Your task to perform on an android device: move a message to another label in the gmail app Image 0: 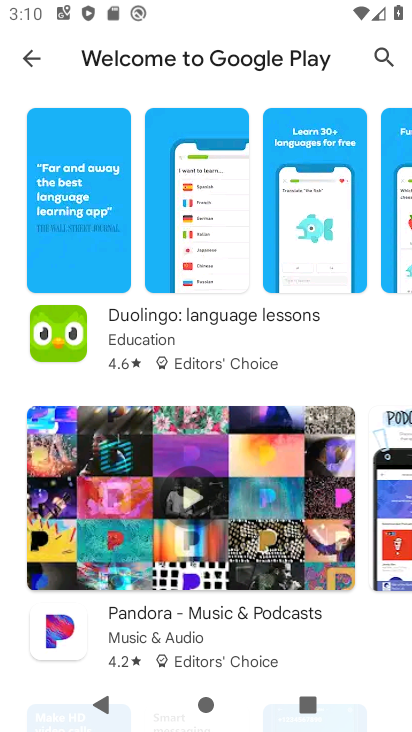
Step 0: press home button
Your task to perform on an android device: move a message to another label in the gmail app Image 1: 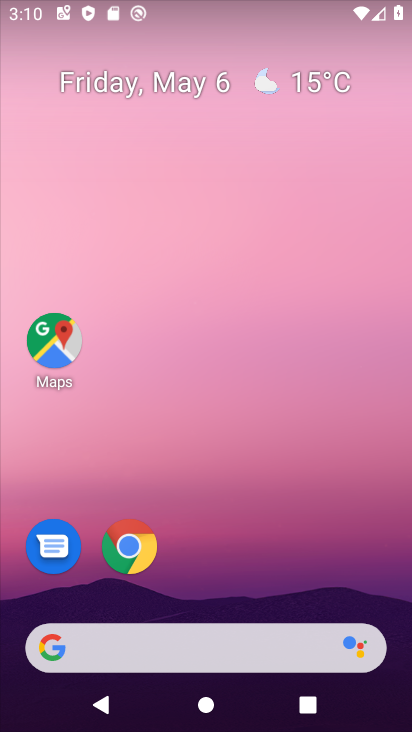
Step 1: drag from (304, 231) to (294, 32)
Your task to perform on an android device: move a message to another label in the gmail app Image 2: 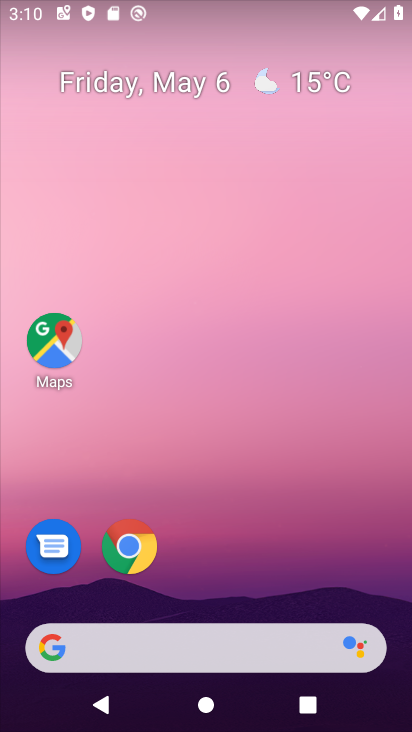
Step 2: drag from (221, 572) to (197, 204)
Your task to perform on an android device: move a message to another label in the gmail app Image 3: 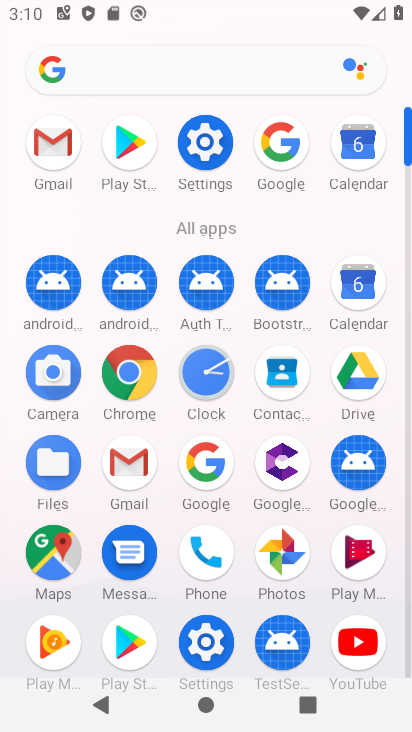
Step 3: click (57, 148)
Your task to perform on an android device: move a message to another label in the gmail app Image 4: 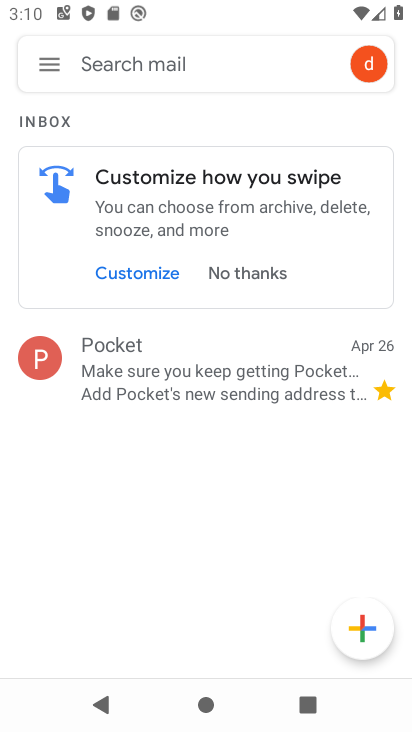
Step 4: click (45, 68)
Your task to perform on an android device: move a message to another label in the gmail app Image 5: 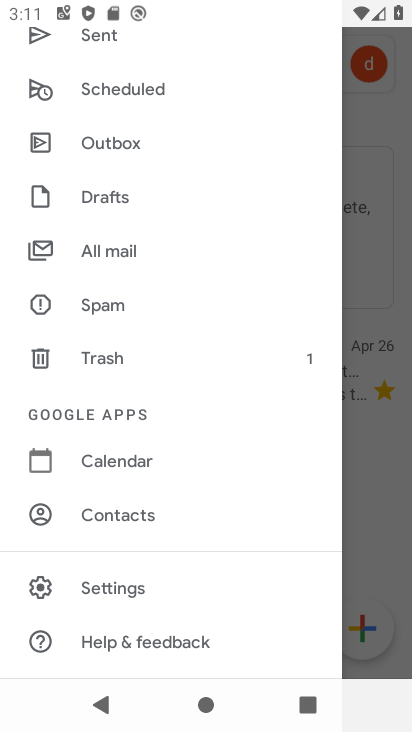
Step 5: click (242, 242)
Your task to perform on an android device: move a message to another label in the gmail app Image 6: 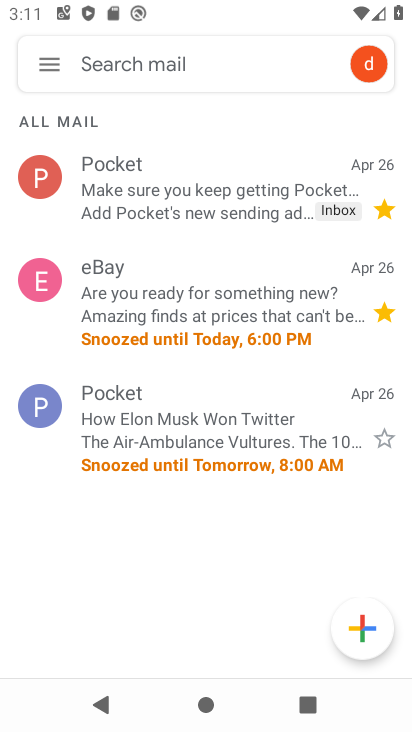
Step 6: click (212, 332)
Your task to perform on an android device: move a message to another label in the gmail app Image 7: 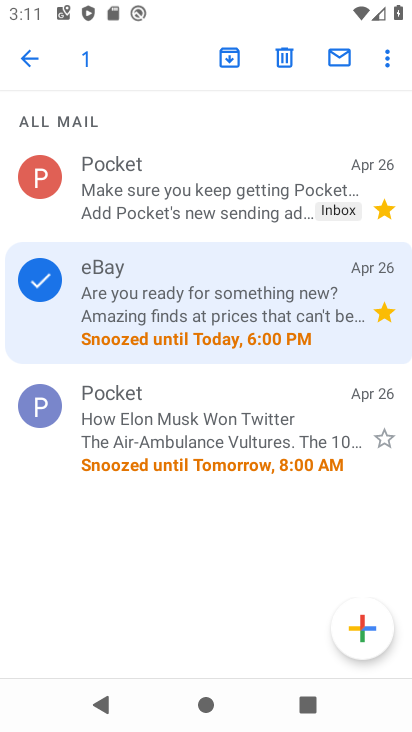
Step 7: click (379, 67)
Your task to perform on an android device: move a message to another label in the gmail app Image 8: 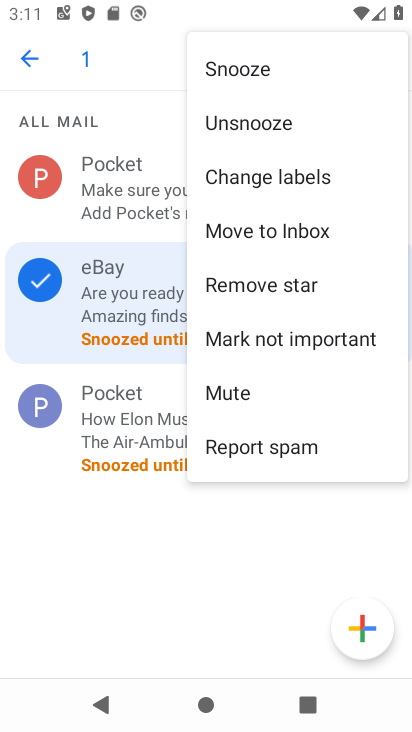
Step 8: click (338, 183)
Your task to perform on an android device: move a message to another label in the gmail app Image 9: 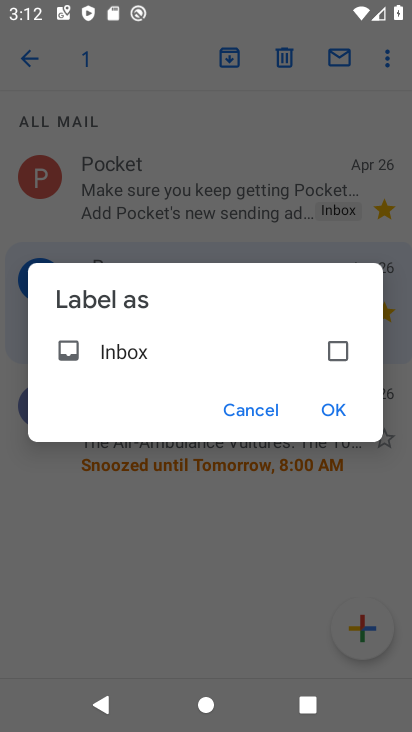
Step 9: click (340, 352)
Your task to perform on an android device: move a message to another label in the gmail app Image 10: 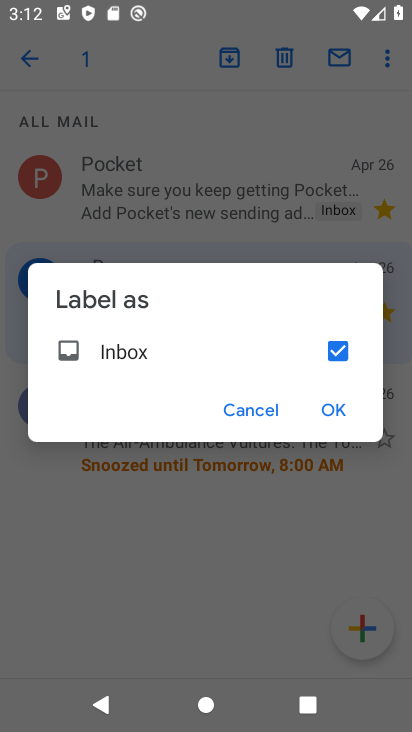
Step 10: click (331, 413)
Your task to perform on an android device: move a message to another label in the gmail app Image 11: 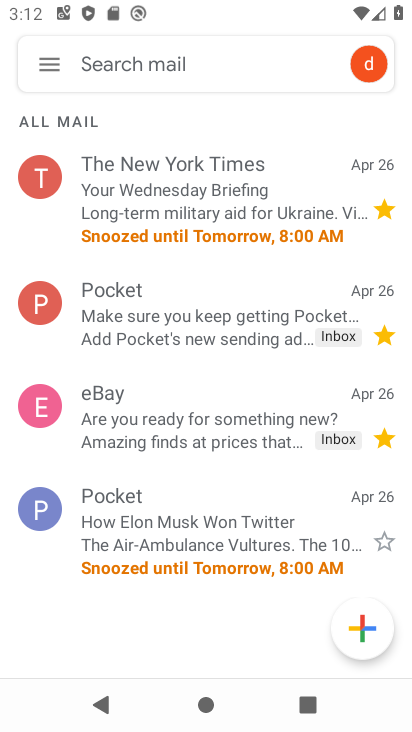
Step 11: task complete